Your task to perform on an android device: Open the map Image 0: 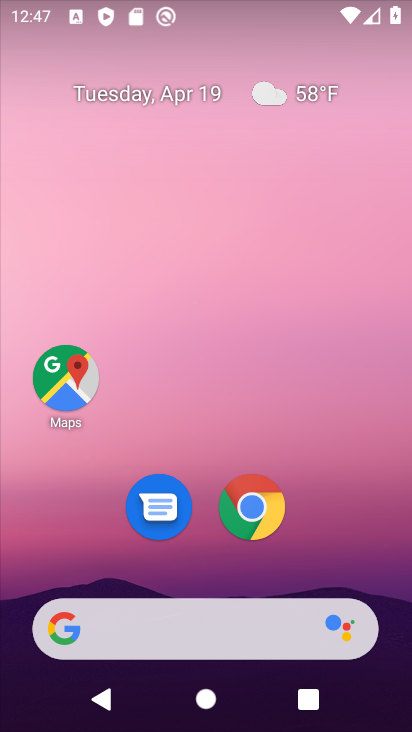
Step 0: click (66, 379)
Your task to perform on an android device: Open the map Image 1: 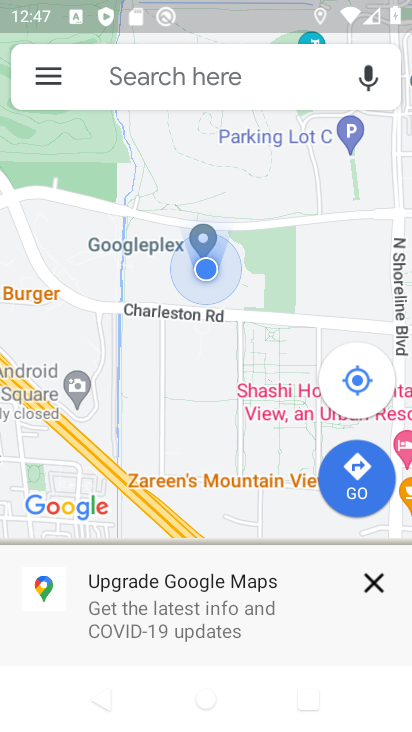
Step 1: task complete